Your task to perform on an android device: Open Google Chrome Image 0: 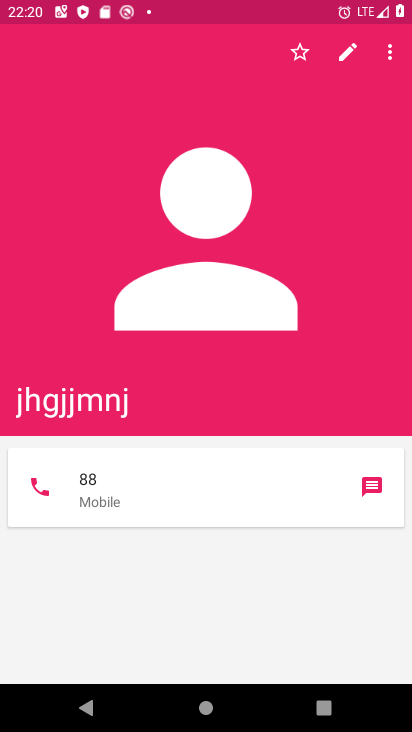
Step 0: press home button
Your task to perform on an android device: Open Google Chrome Image 1: 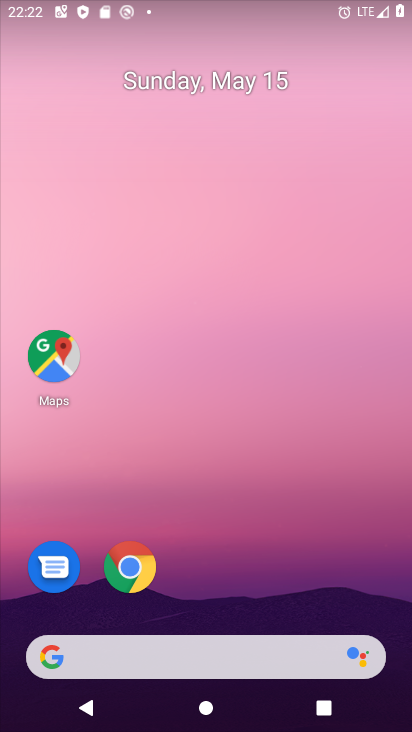
Step 1: click (122, 573)
Your task to perform on an android device: Open Google Chrome Image 2: 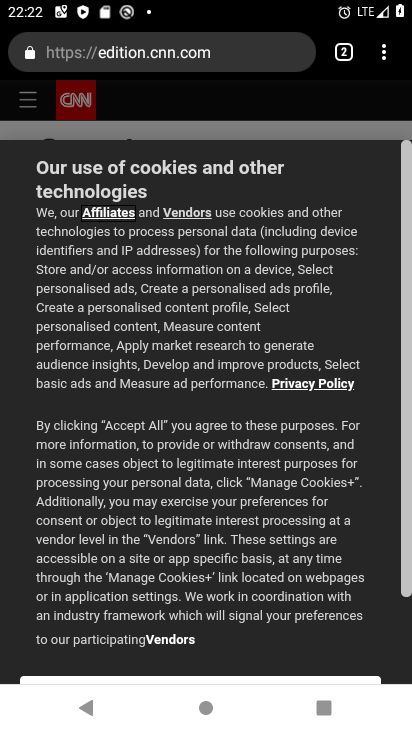
Step 2: task complete